Your task to perform on an android device: Open display settings Image 0: 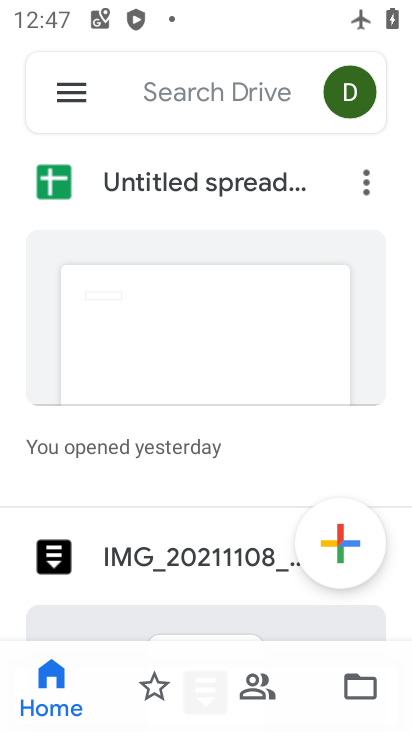
Step 0: press enter
Your task to perform on an android device: Open display settings Image 1: 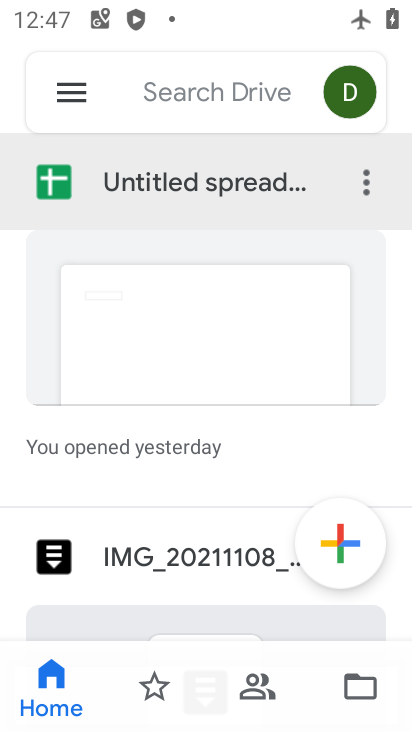
Step 1: press home button
Your task to perform on an android device: Open display settings Image 2: 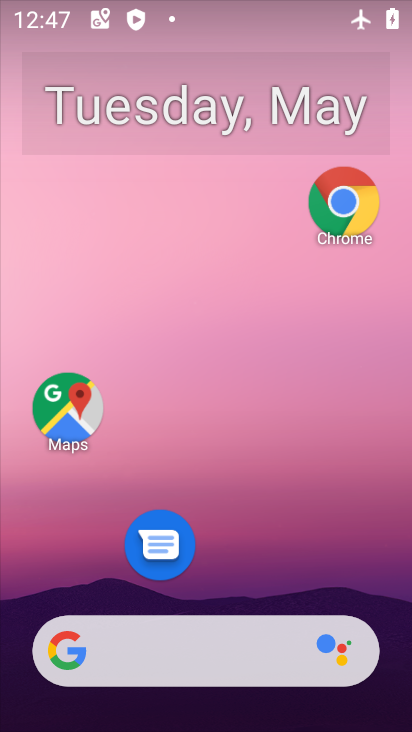
Step 2: drag from (186, 563) to (212, 19)
Your task to perform on an android device: Open display settings Image 3: 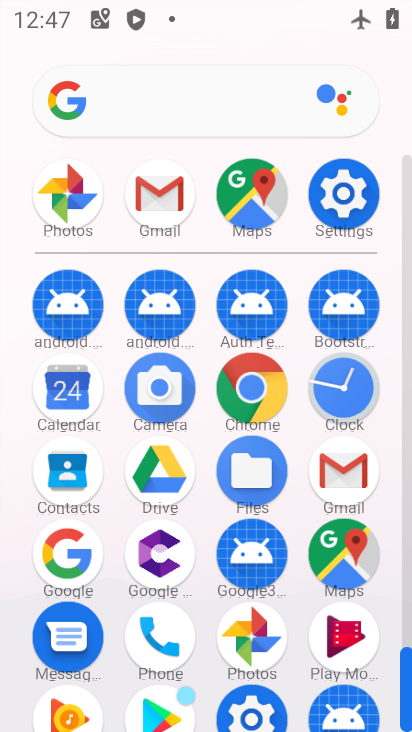
Step 3: click (344, 174)
Your task to perform on an android device: Open display settings Image 4: 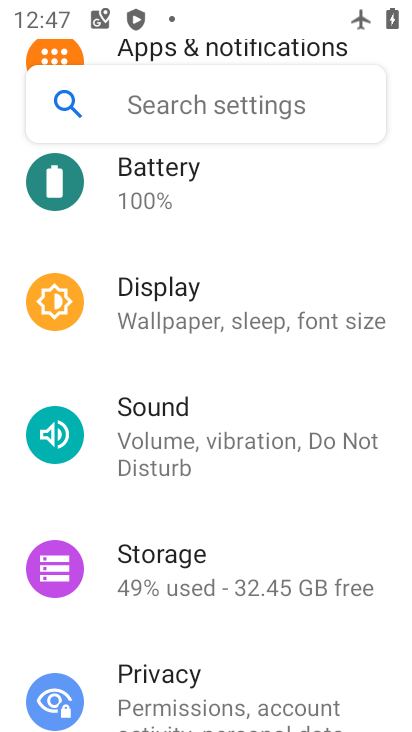
Step 4: click (177, 302)
Your task to perform on an android device: Open display settings Image 5: 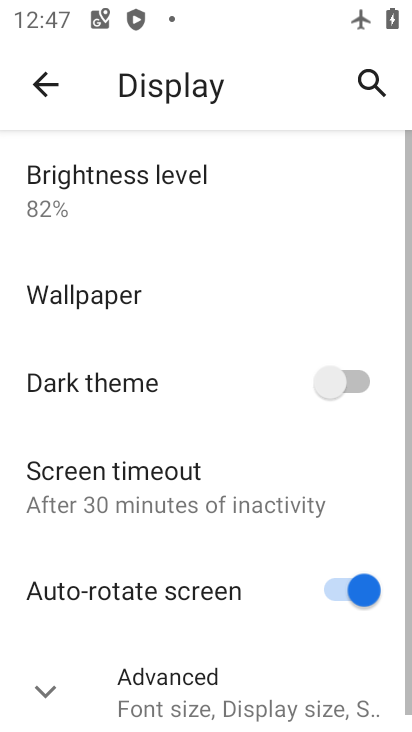
Step 5: task complete